Your task to perform on an android device: Open battery settings Image 0: 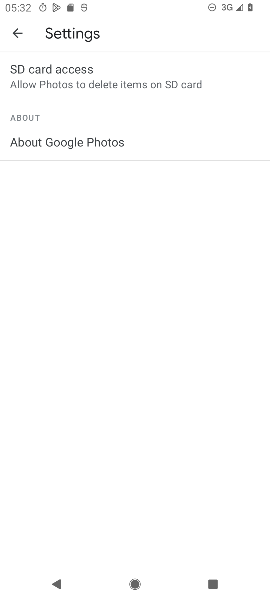
Step 0: press home button
Your task to perform on an android device: Open battery settings Image 1: 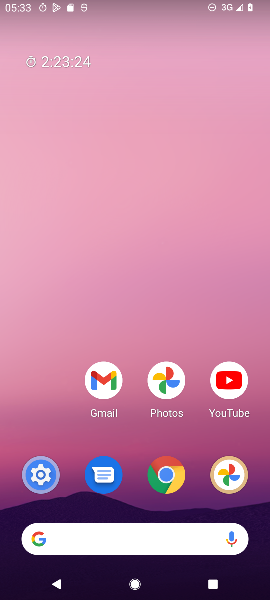
Step 1: drag from (64, 440) to (53, 160)
Your task to perform on an android device: Open battery settings Image 2: 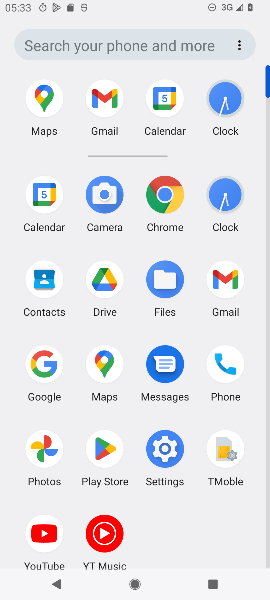
Step 2: click (163, 449)
Your task to perform on an android device: Open battery settings Image 3: 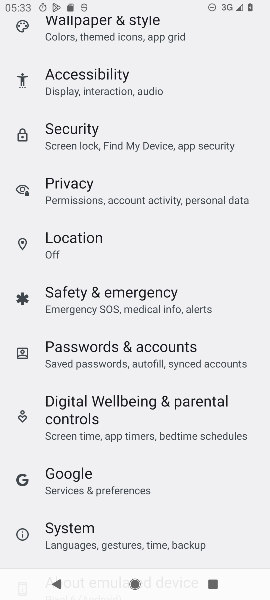
Step 3: drag from (237, 258) to (239, 334)
Your task to perform on an android device: Open battery settings Image 4: 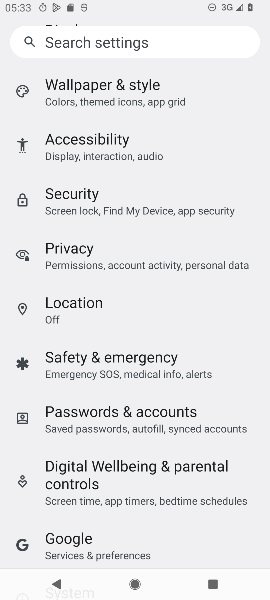
Step 4: drag from (236, 189) to (240, 302)
Your task to perform on an android device: Open battery settings Image 5: 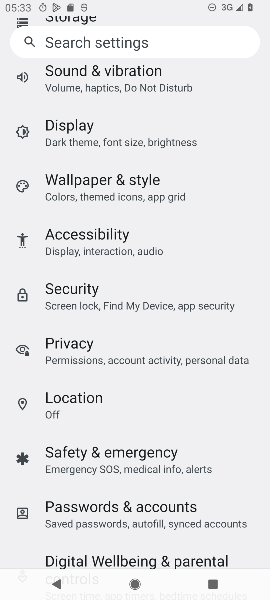
Step 5: drag from (227, 157) to (230, 256)
Your task to perform on an android device: Open battery settings Image 6: 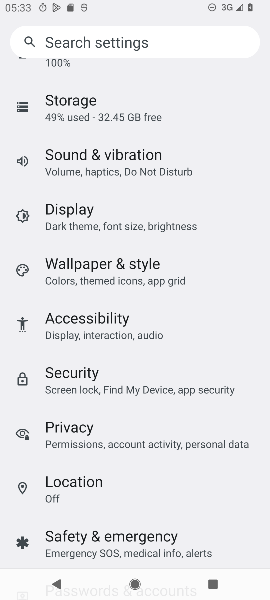
Step 6: drag from (213, 139) to (225, 242)
Your task to perform on an android device: Open battery settings Image 7: 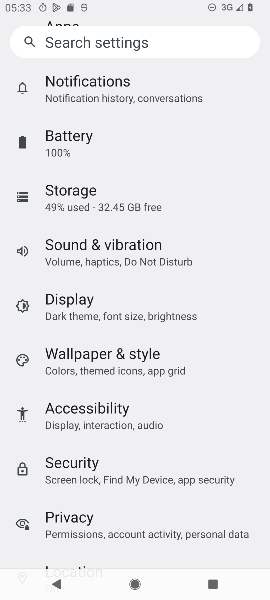
Step 7: drag from (226, 150) to (229, 250)
Your task to perform on an android device: Open battery settings Image 8: 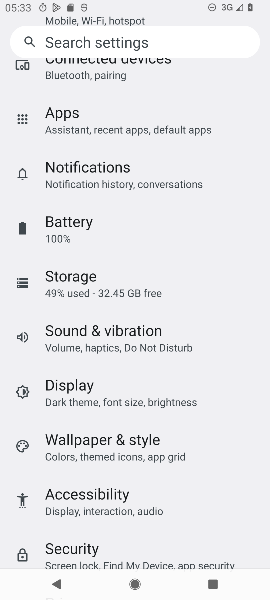
Step 8: drag from (240, 103) to (241, 243)
Your task to perform on an android device: Open battery settings Image 9: 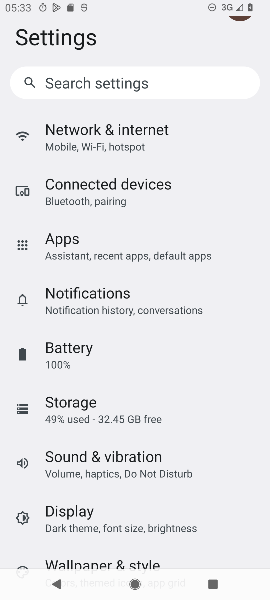
Step 9: click (194, 355)
Your task to perform on an android device: Open battery settings Image 10: 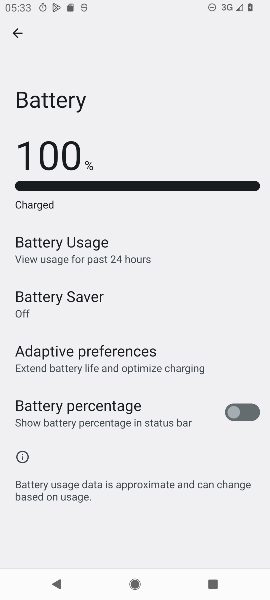
Step 10: task complete